Your task to perform on an android device: open app "Adobe Acrobat Reader: Edit PDF" Image 0: 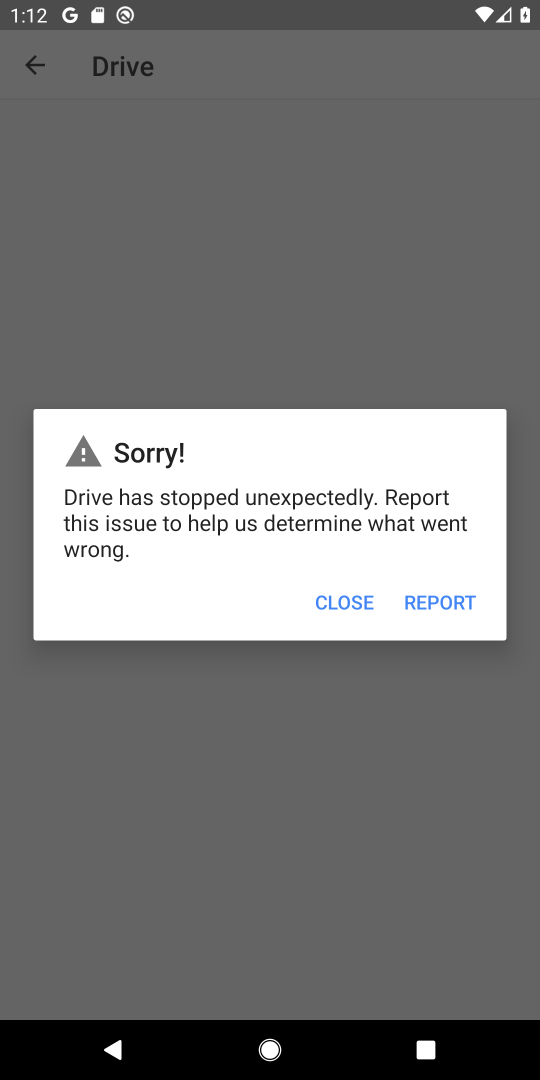
Step 0: press home button
Your task to perform on an android device: open app "Adobe Acrobat Reader: Edit PDF" Image 1: 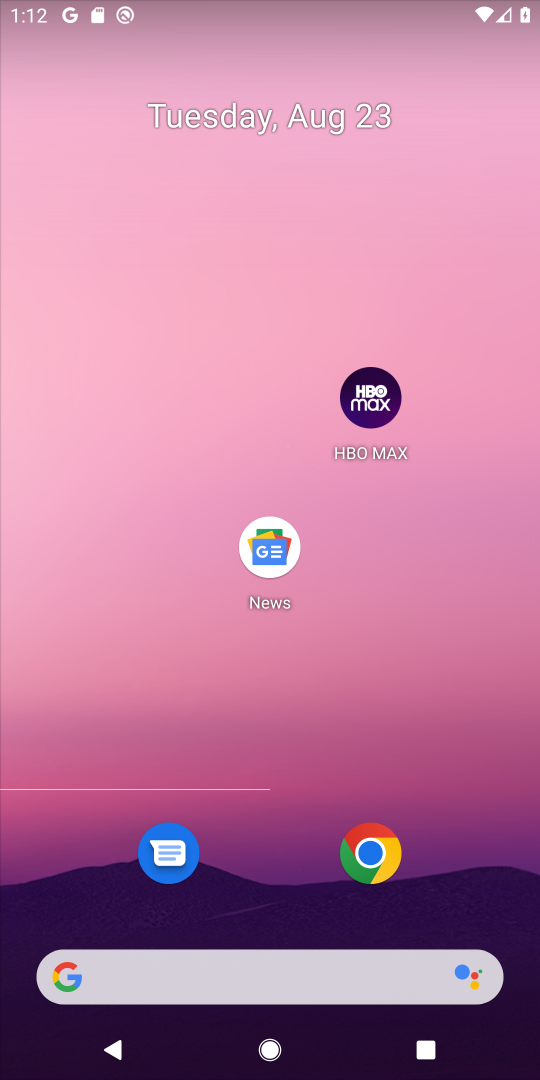
Step 1: drag from (498, 922) to (451, 195)
Your task to perform on an android device: open app "Adobe Acrobat Reader: Edit PDF" Image 2: 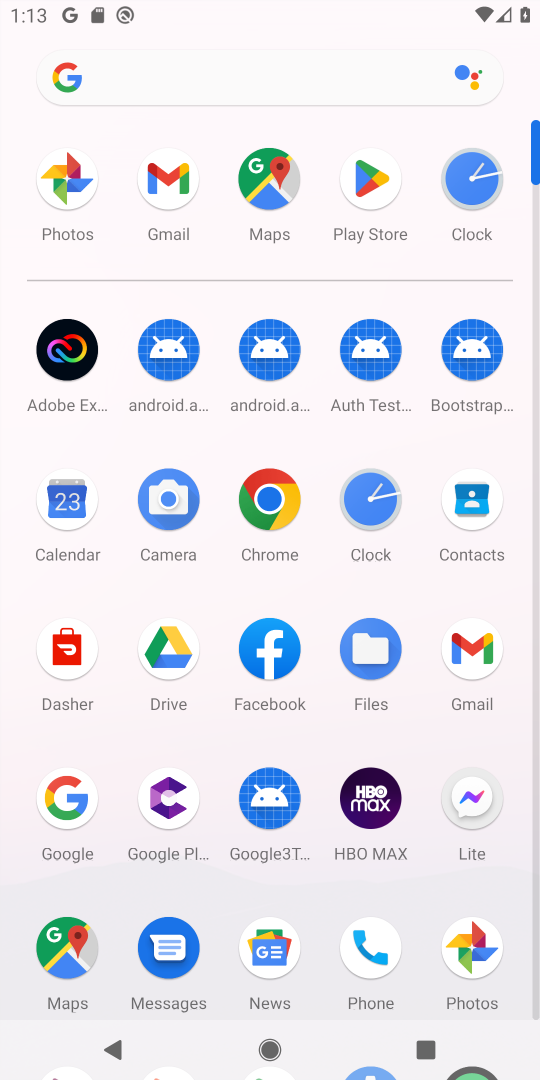
Step 2: drag from (417, 883) to (406, 460)
Your task to perform on an android device: open app "Adobe Acrobat Reader: Edit PDF" Image 3: 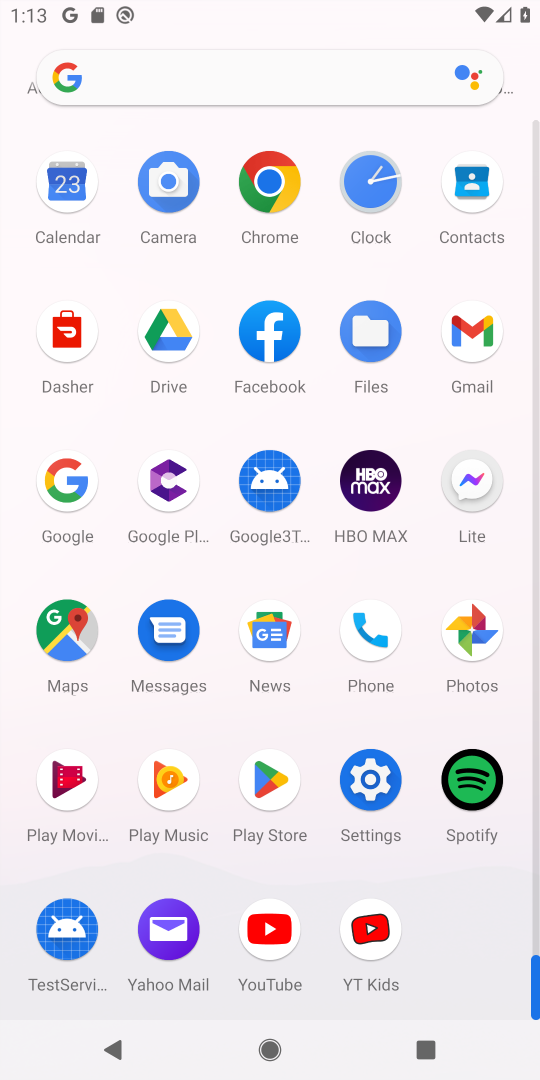
Step 3: click (272, 777)
Your task to perform on an android device: open app "Adobe Acrobat Reader: Edit PDF" Image 4: 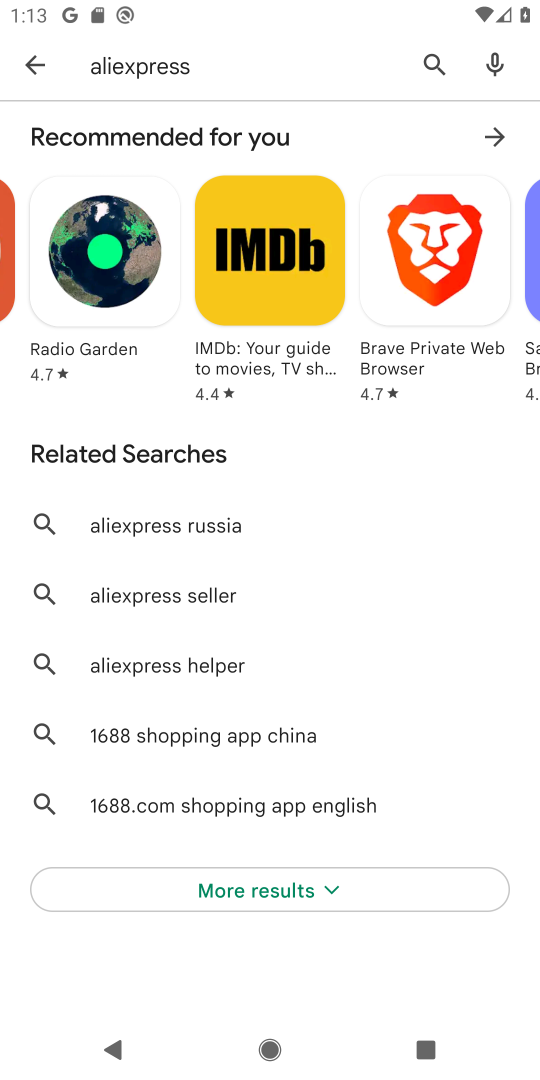
Step 4: click (433, 64)
Your task to perform on an android device: open app "Adobe Acrobat Reader: Edit PDF" Image 5: 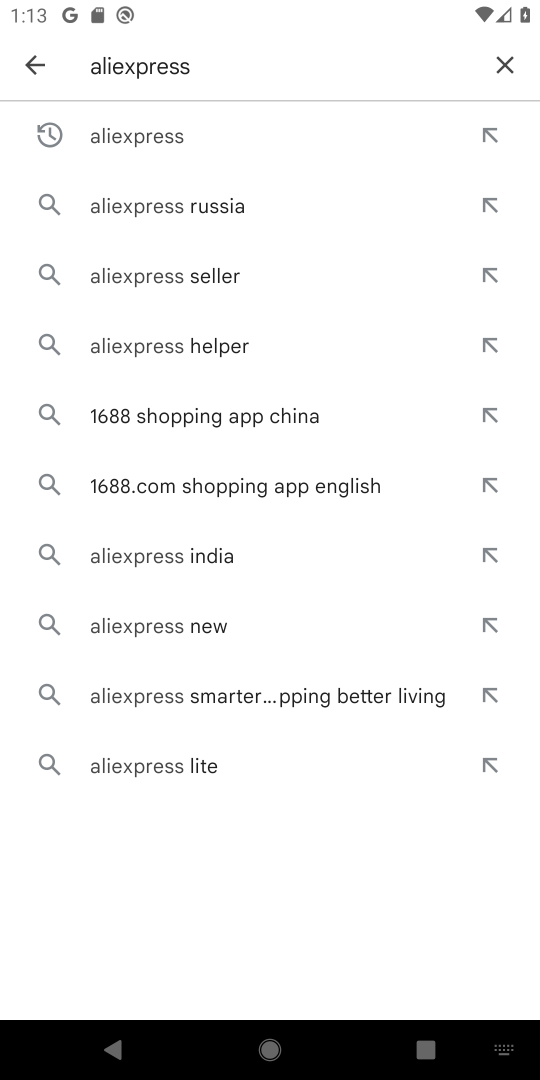
Step 5: click (501, 61)
Your task to perform on an android device: open app "Adobe Acrobat Reader: Edit PDF" Image 6: 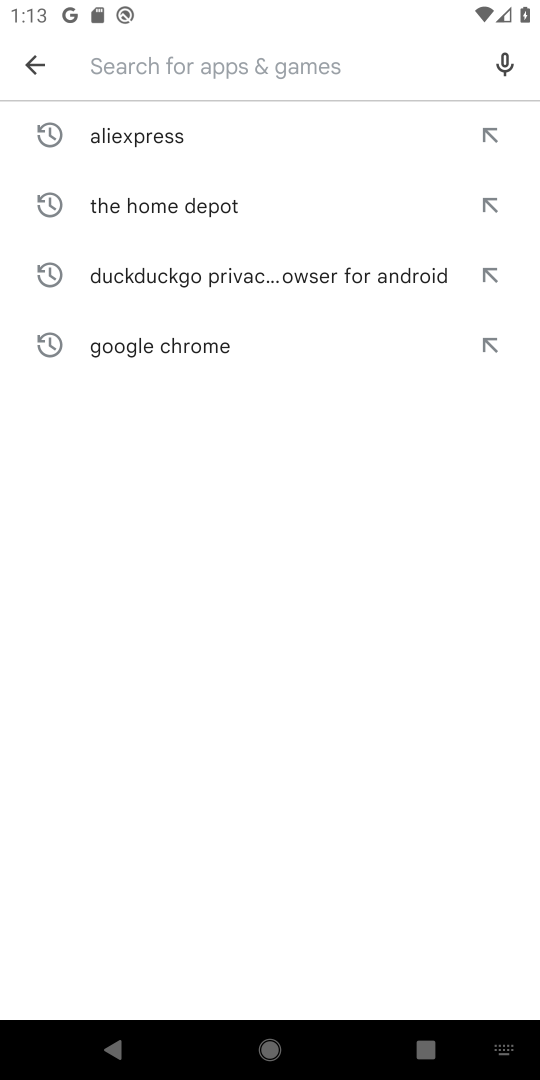
Step 6: type "Adobe Acrobat Reader: Edit PDF"
Your task to perform on an android device: open app "Adobe Acrobat Reader: Edit PDF" Image 7: 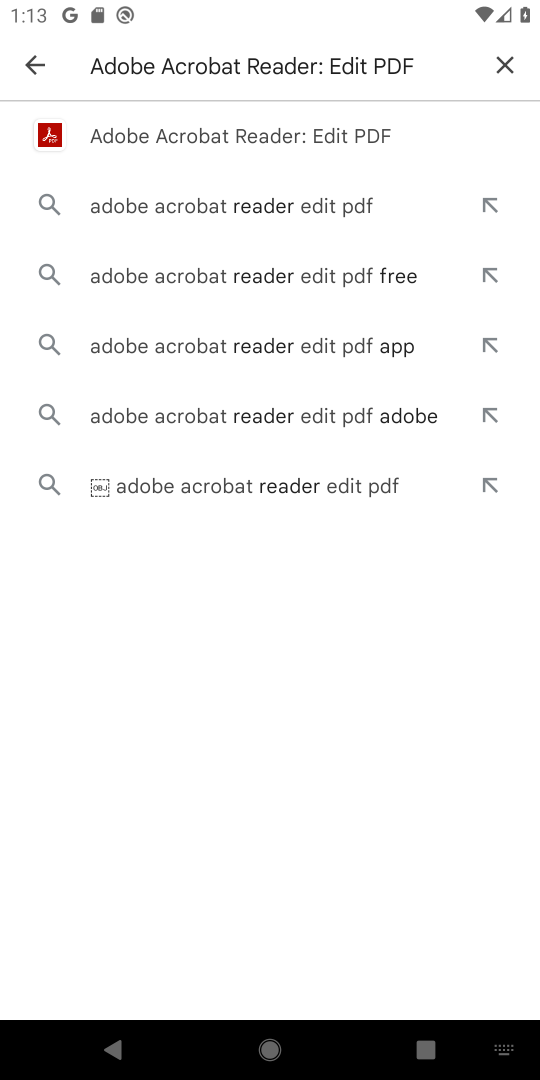
Step 7: click (163, 129)
Your task to perform on an android device: open app "Adobe Acrobat Reader: Edit PDF" Image 8: 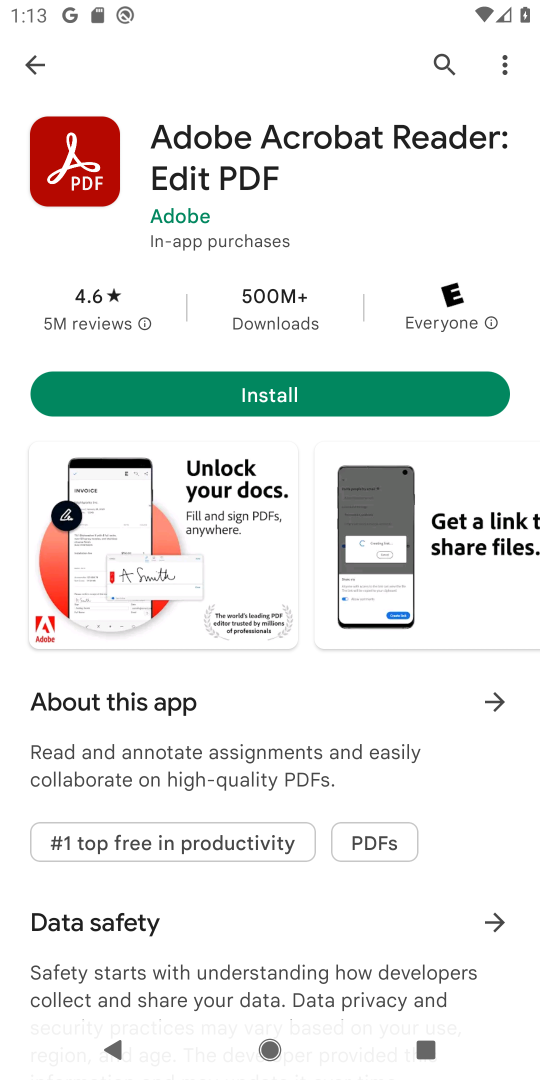
Step 8: task complete